Your task to perform on an android device: What's the top post on reddit? Image 0: 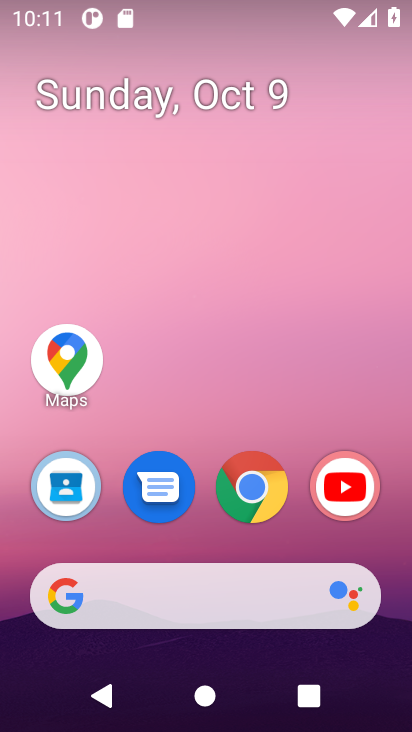
Step 0: drag from (250, 503) to (246, 143)
Your task to perform on an android device: What's the top post on reddit? Image 1: 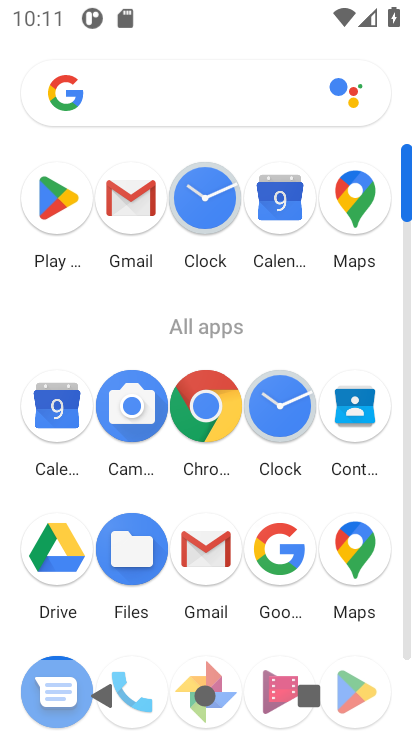
Step 1: drag from (247, 570) to (257, 220)
Your task to perform on an android device: What's the top post on reddit? Image 2: 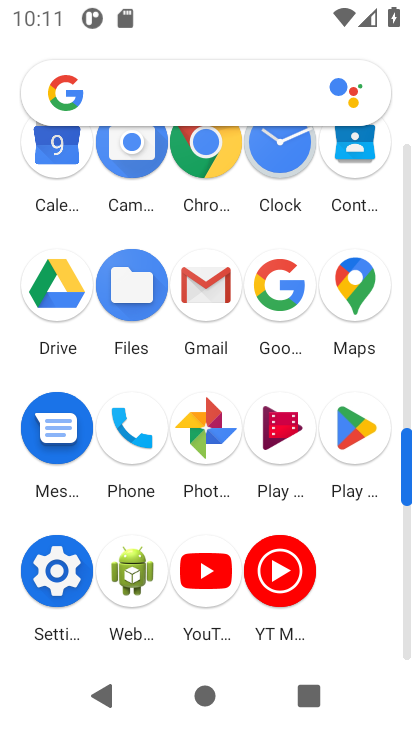
Step 2: press home button
Your task to perform on an android device: What's the top post on reddit? Image 3: 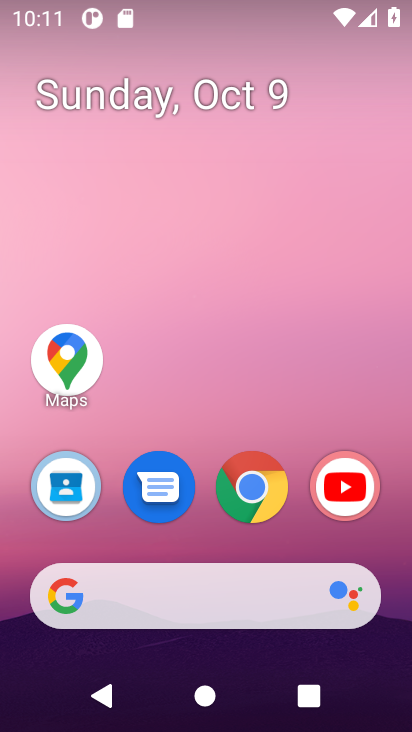
Step 3: click (256, 510)
Your task to perform on an android device: What's the top post on reddit? Image 4: 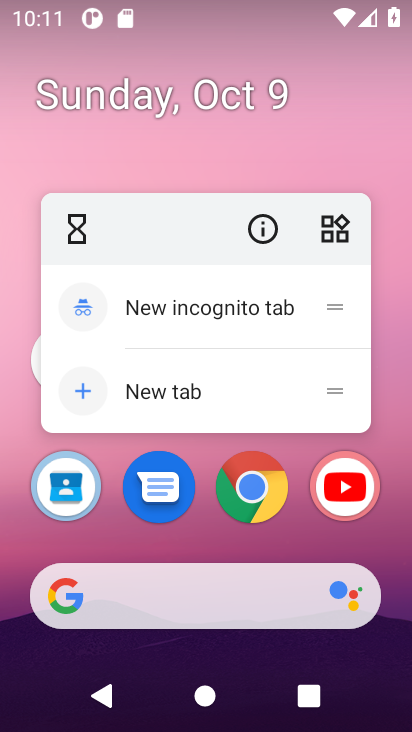
Step 4: click (260, 500)
Your task to perform on an android device: What's the top post on reddit? Image 5: 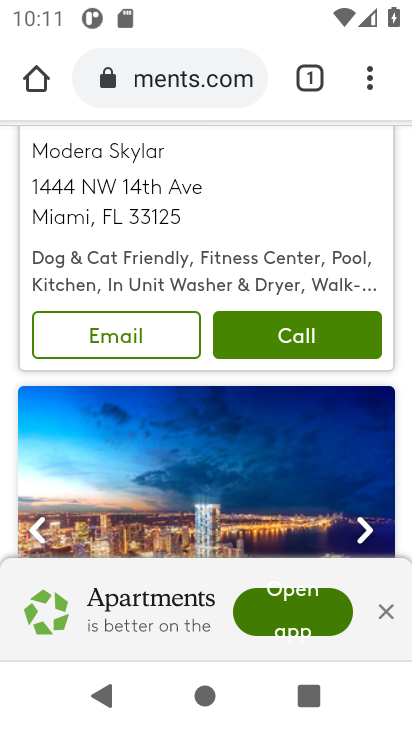
Step 5: click (178, 77)
Your task to perform on an android device: What's the top post on reddit? Image 6: 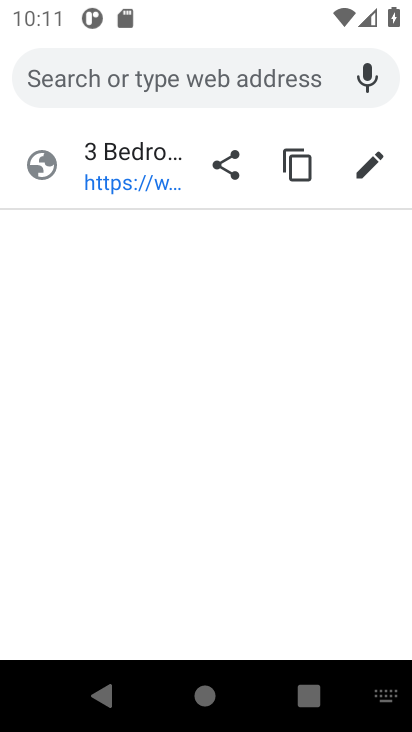
Step 6: type "top post on reddit"
Your task to perform on an android device: What's the top post on reddit? Image 7: 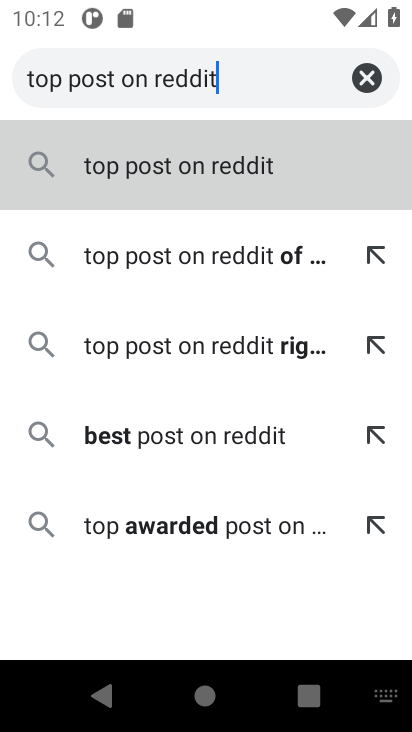
Step 7: type ""
Your task to perform on an android device: What's the top post on reddit? Image 8: 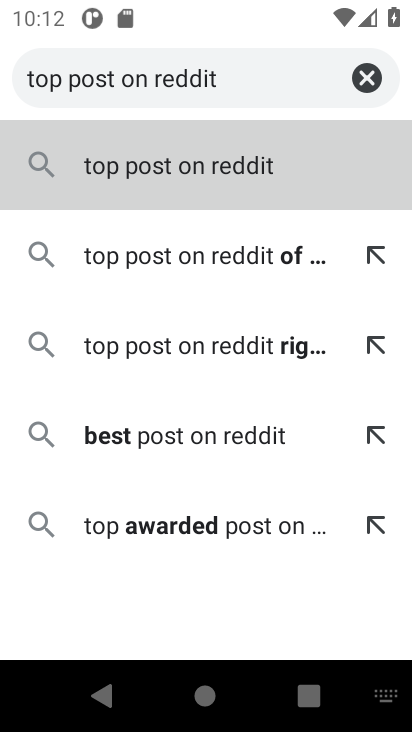
Step 8: click (278, 173)
Your task to perform on an android device: What's the top post on reddit? Image 9: 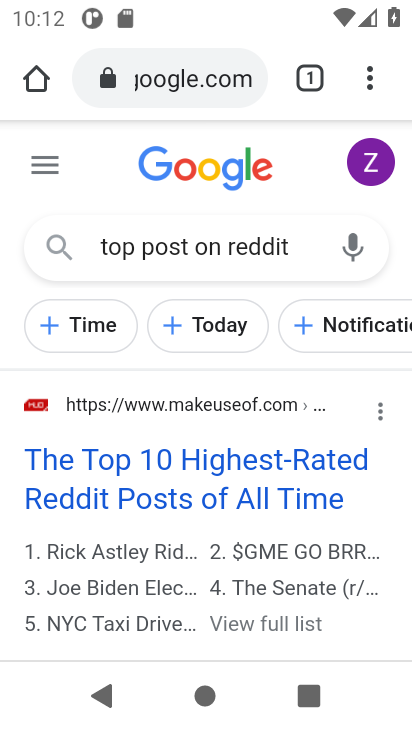
Step 9: drag from (234, 513) to (242, 169)
Your task to perform on an android device: What's the top post on reddit? Image 10: 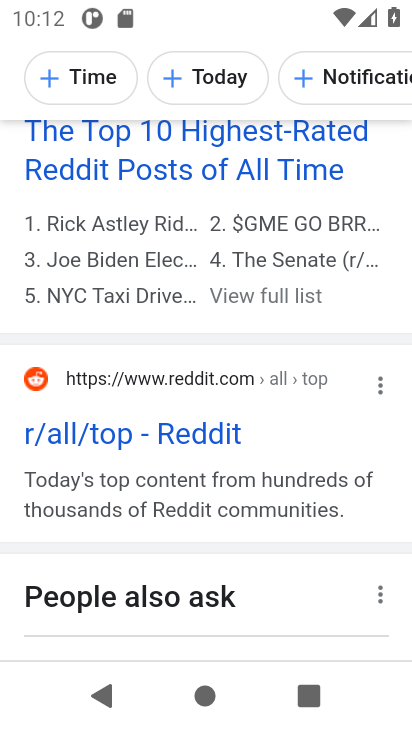
Step 10: click (165, 439)
Your task to perform on an android device: What's the top post on reddit? Image 11: 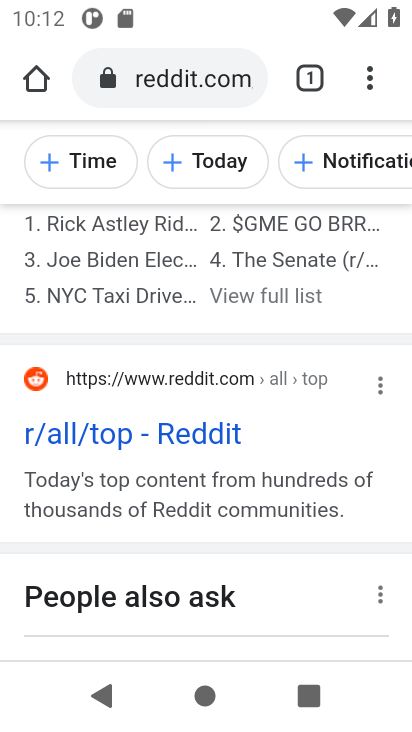
Step 11: drag from (262, 486) to (271, 354)
Your task to perform on an android device: What's the top post on reddit? Image 12: 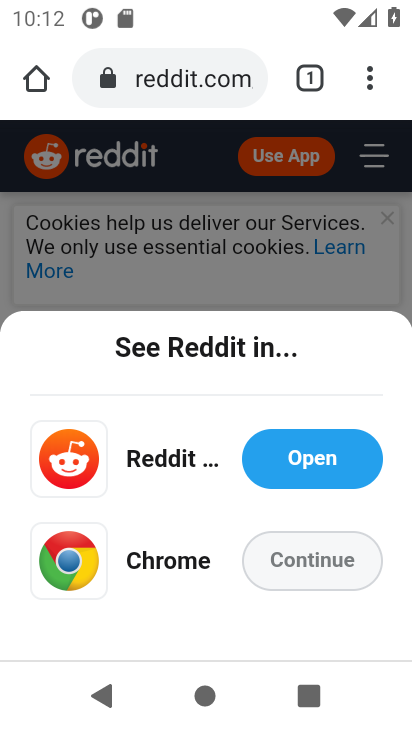
Step 12: click (302, 574)
Your task to perform on an android device: What's the top post on reddit? Image 13: 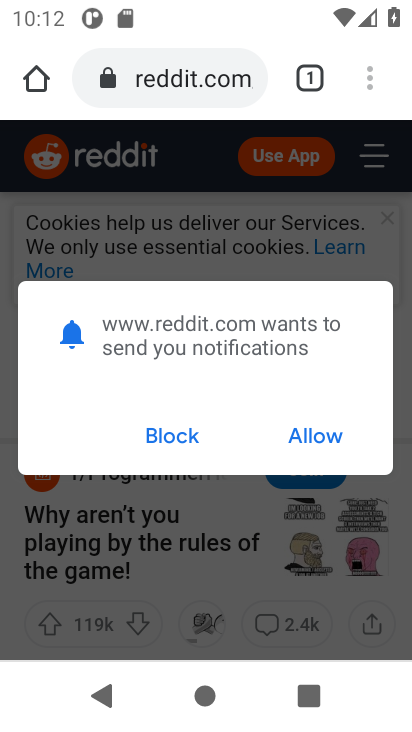
Step 13: click (309, 439)
Your task to perform on an android device: What's the top post on reddit? Image 14: 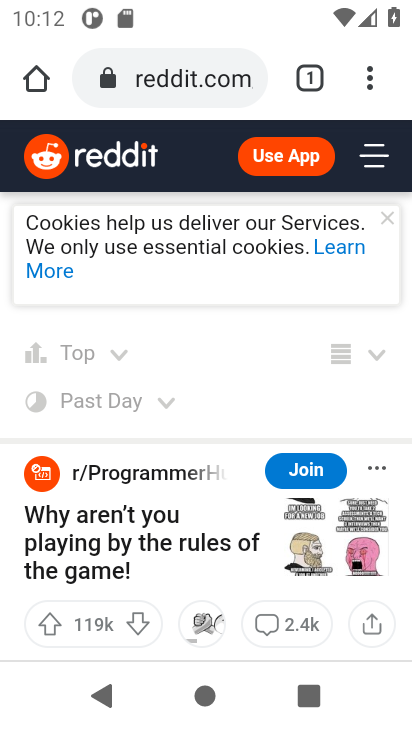
Step 14: task complete